Your task to perform on an android device: add a contact Image 0: 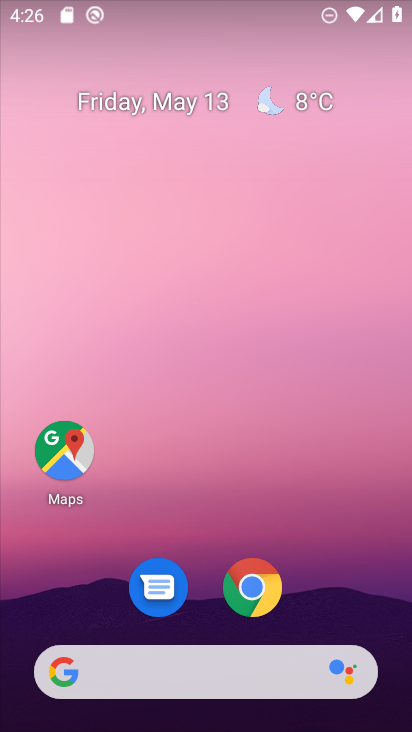
Step 0: drag from (198, 618) to (199, 219)
Your task to perform on an android device: add a contact Image 1: 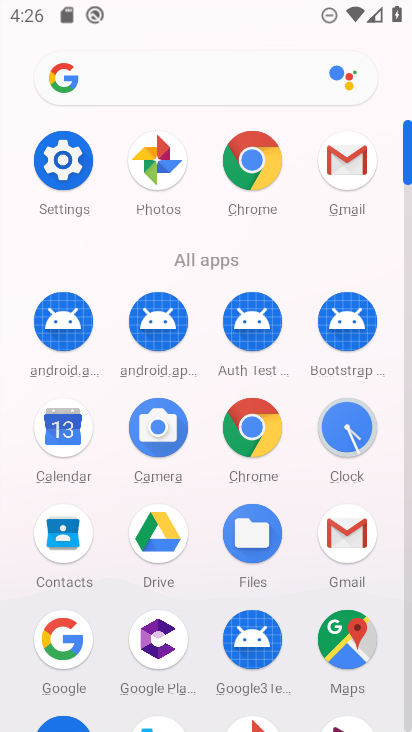
Step 1: click (52, 526)
Your task to perform on an android device: add a contact Image 2: 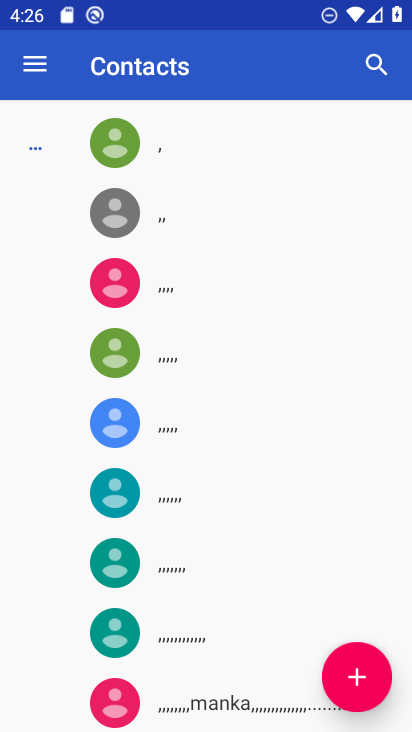
Step 2: click (346, 660)
Your task to perform on an android device: add a contact Image 3: 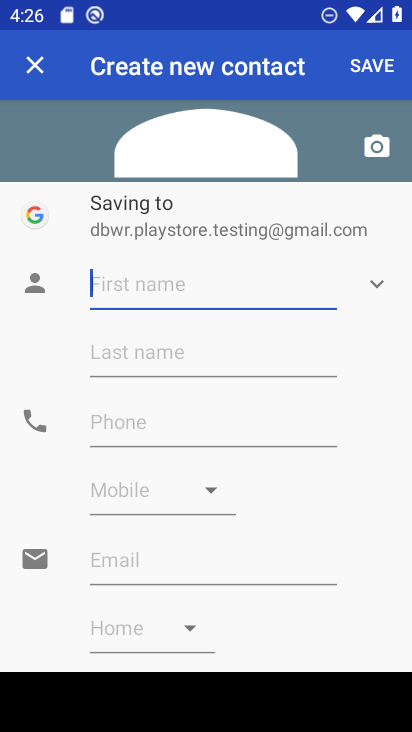
Step 3: type "fdfhfhf"
Your task to perform on an android device: add a contact Image 4: 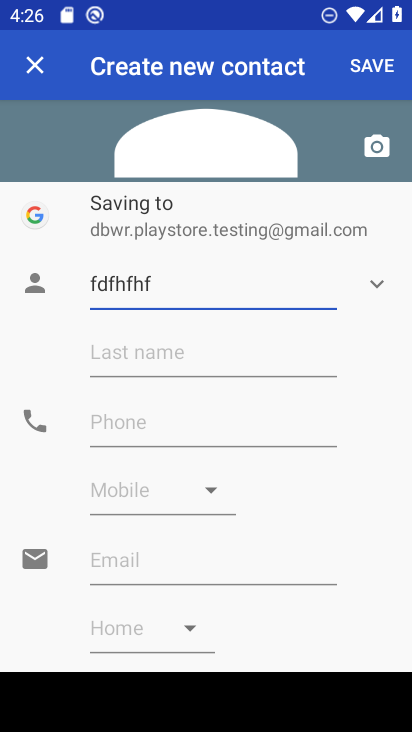
Step 4: click (166, 421)
Your task to perform on an android device: add a contact Image 5: 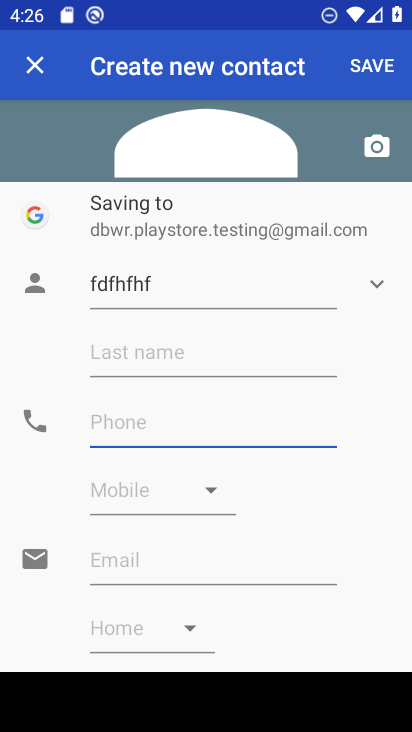
Step 5: type "79769656568"
Your task to perform on an android device: add a contact Image 6: 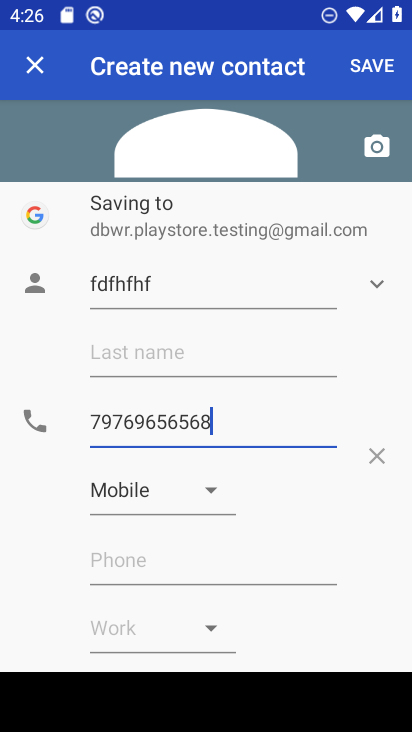
Step 6: click (367, 74)
Your task to perform on an android device: add a contact Image 7: 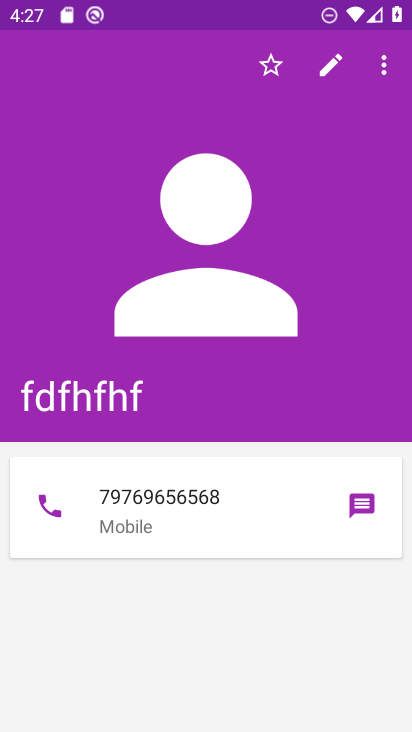
Step 7: task complete